Your task to perform on an android device: open app "Firefox Browser" (install if not already installed) and enter user name: "hashed@outlook.com" and password: "congestive" Image 0: 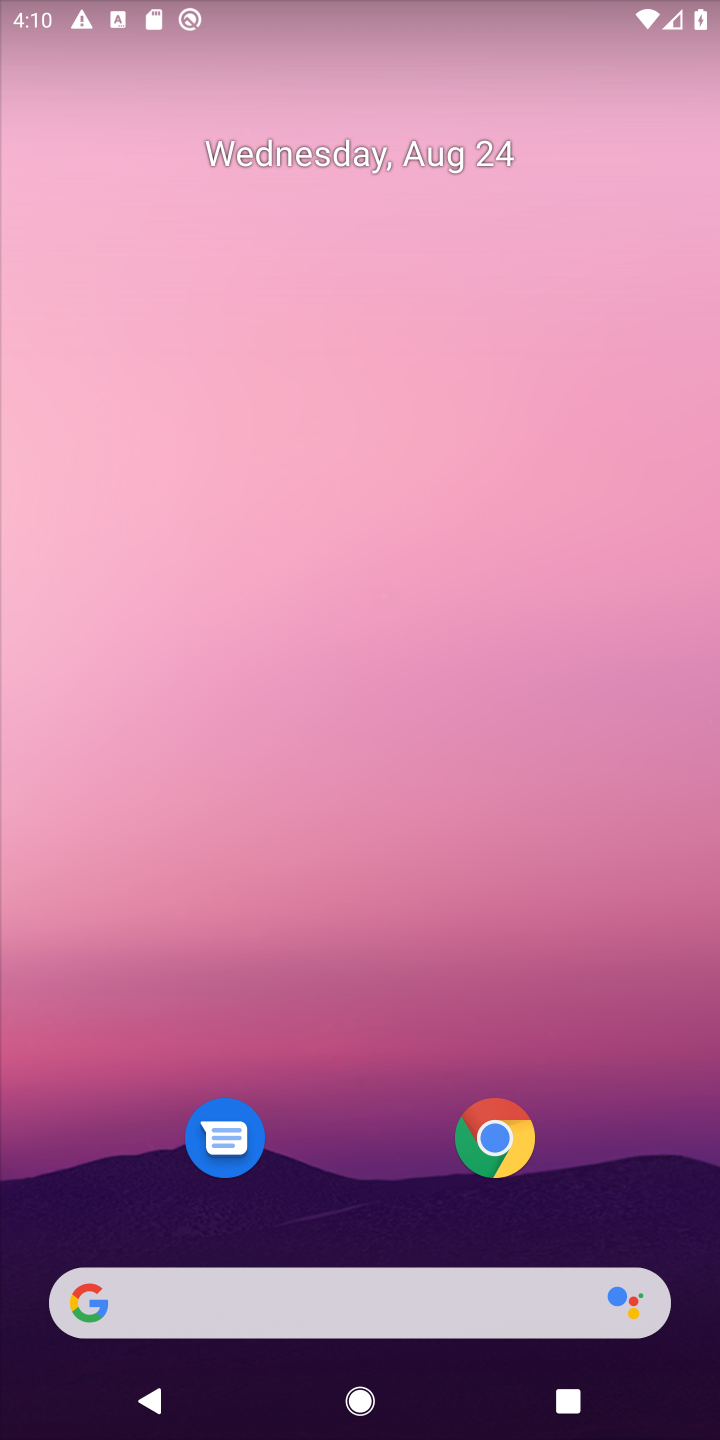
Step 0: drag from (350, 594) to (343, 5)
Your task to perform on an android device: open app "Firefox Browser" (install if not already installed) and enter user name: "hashed@outlook.com" and password: "congestive" Image 1: 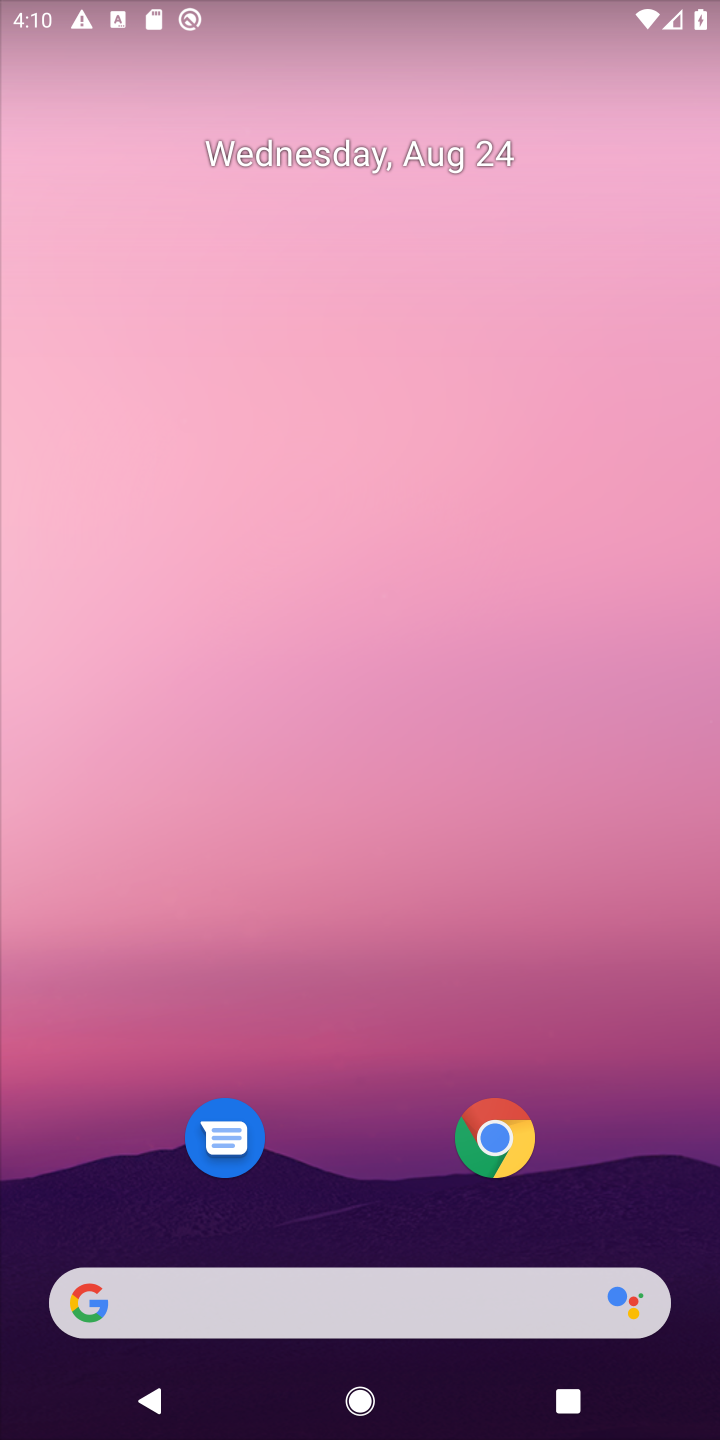
Step 1: drag from (379, 951) to (391, 4)
Your task to perform on an android device: open app "Firefox Browser" (install if not already installed) and enter user name: "hashed@outlook.com" and password: "congestive" Image 2: 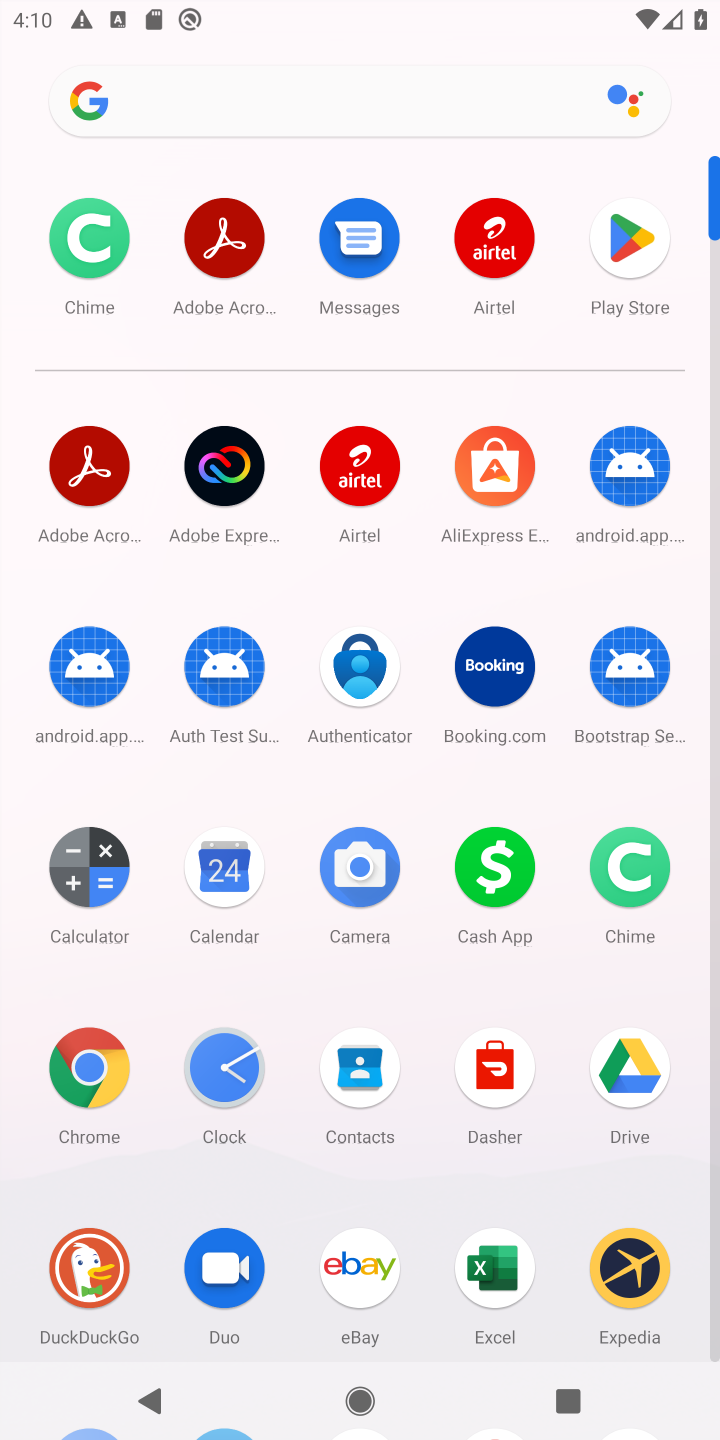
Step 2: click (640, 241)
Your task to perform on an android device: open app "Firefox Browser" (install if not already installed) and enter user name: "hashed@outlook.com" and password: "congestive" Image 3: 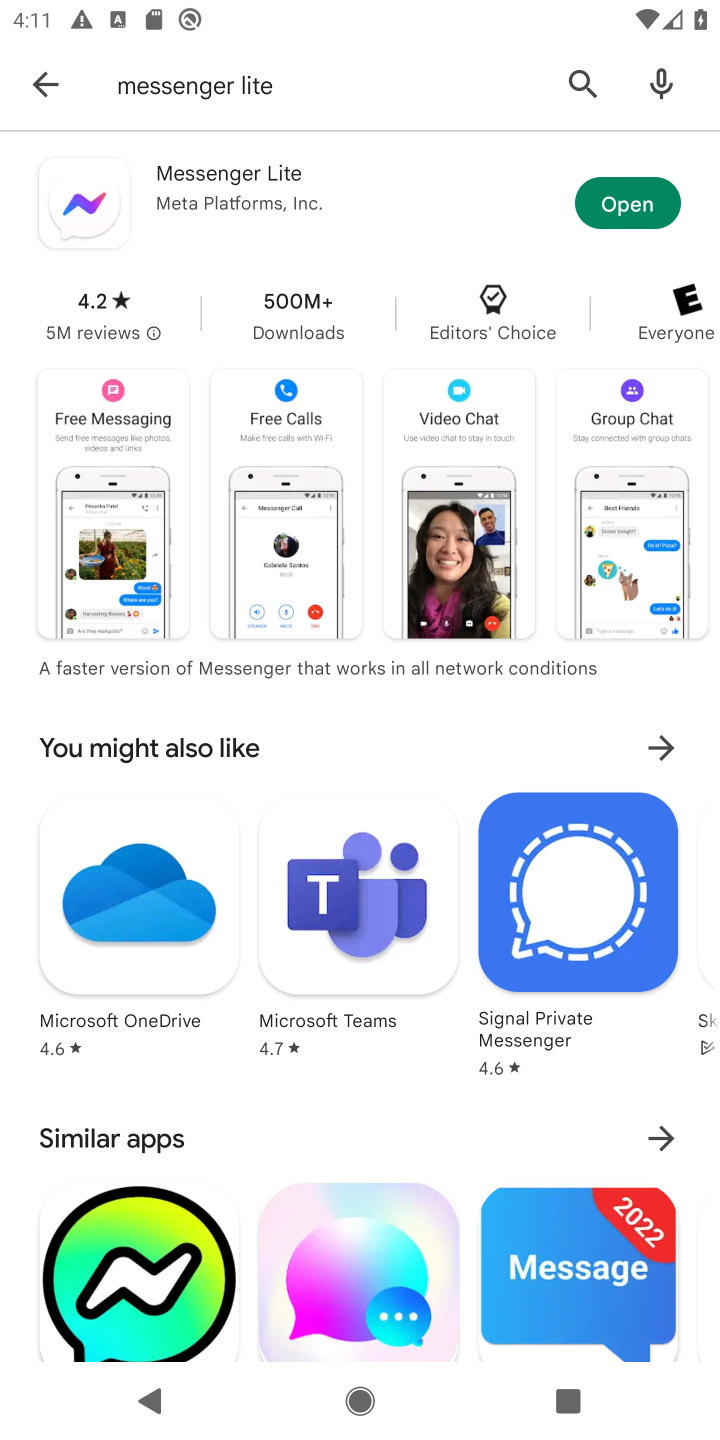
Step 3: click (578, 78)
Your task to perform on an android device: open app "Firefox Browser" (install if not already installed) and enter user name: "hashed@outlook.com" and password: "congestive" Image 4: 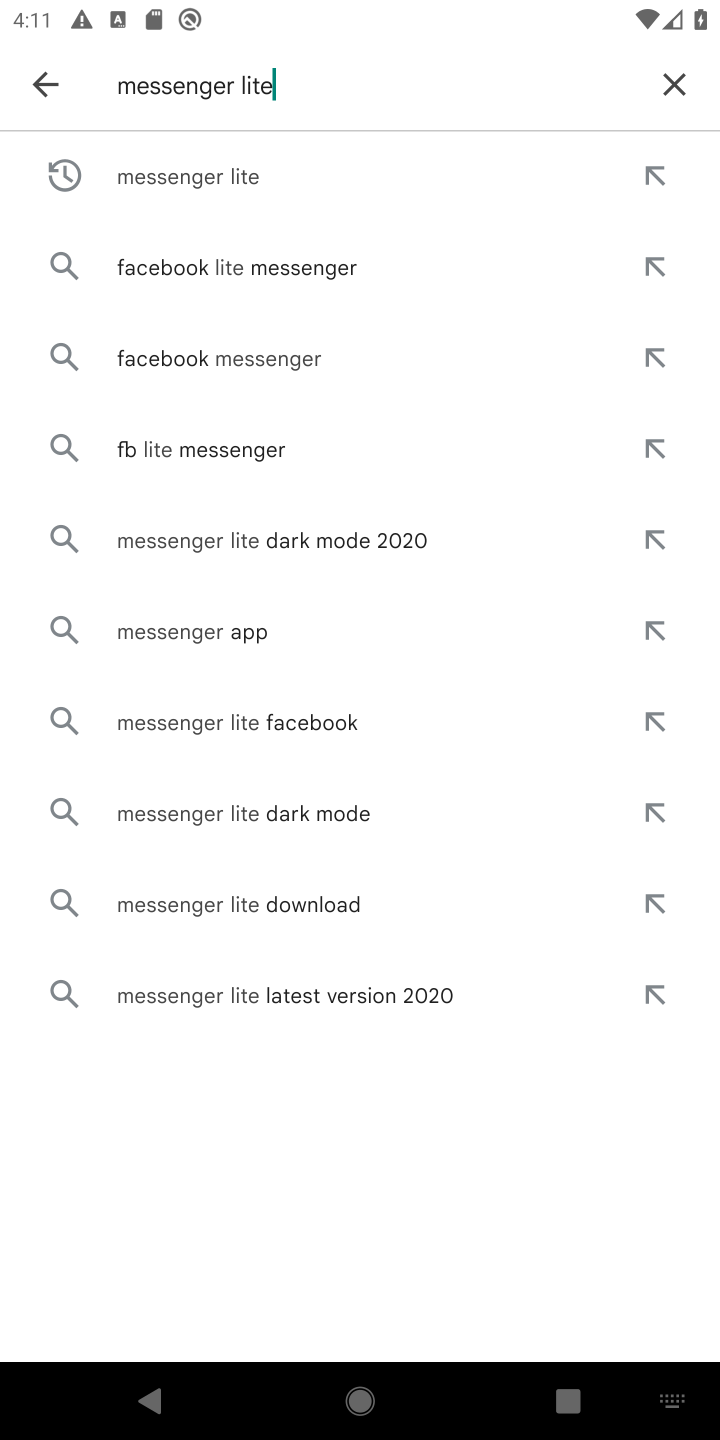
Step 4: click (662, 82)
Your task to perform on an android device: open app "Firefox Browser" (install if not already installed) and enter user name: "hashed@outlook.com" and password: "congestive" Image 5: 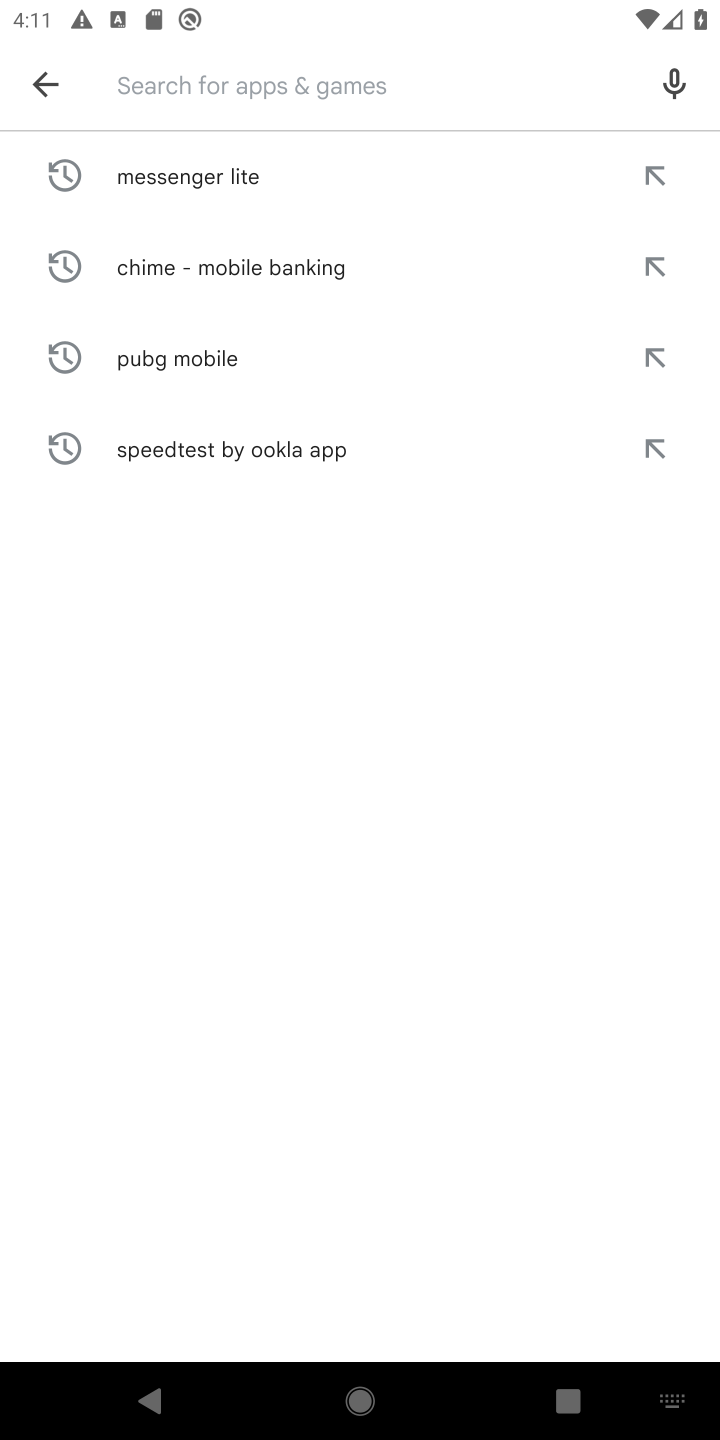
Step 5: type "Firefox Browser"
Your task to perform on an android device: open app "Firefox Browser" (install if not already installed) and enter user name: "hashed@outlook.com" and password: "congestive" Image 6: 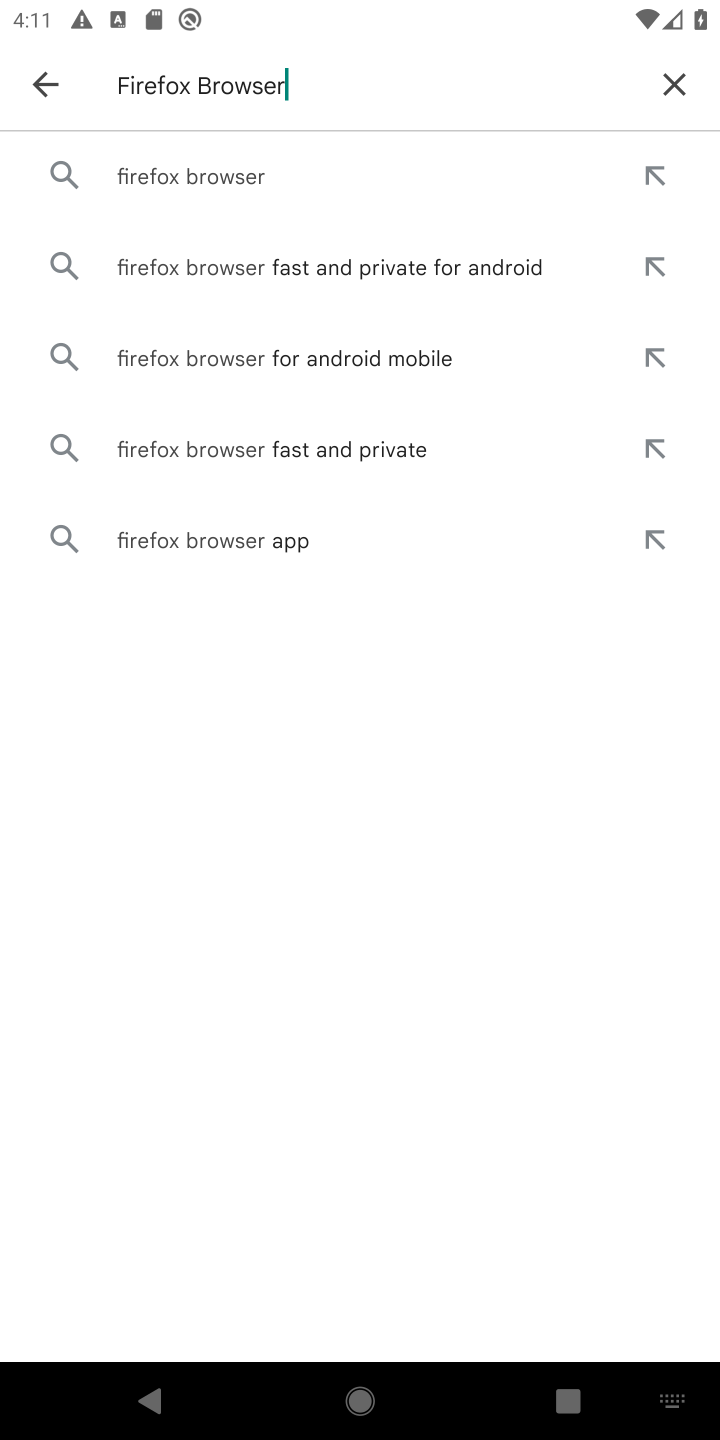
Step 6: click (225, 174)
Your task to perform on an android device: open app "Firefox Browser" (install if not already installed) and enter user name: "hashed@outlook.com" and password: "congestive" Image 7: 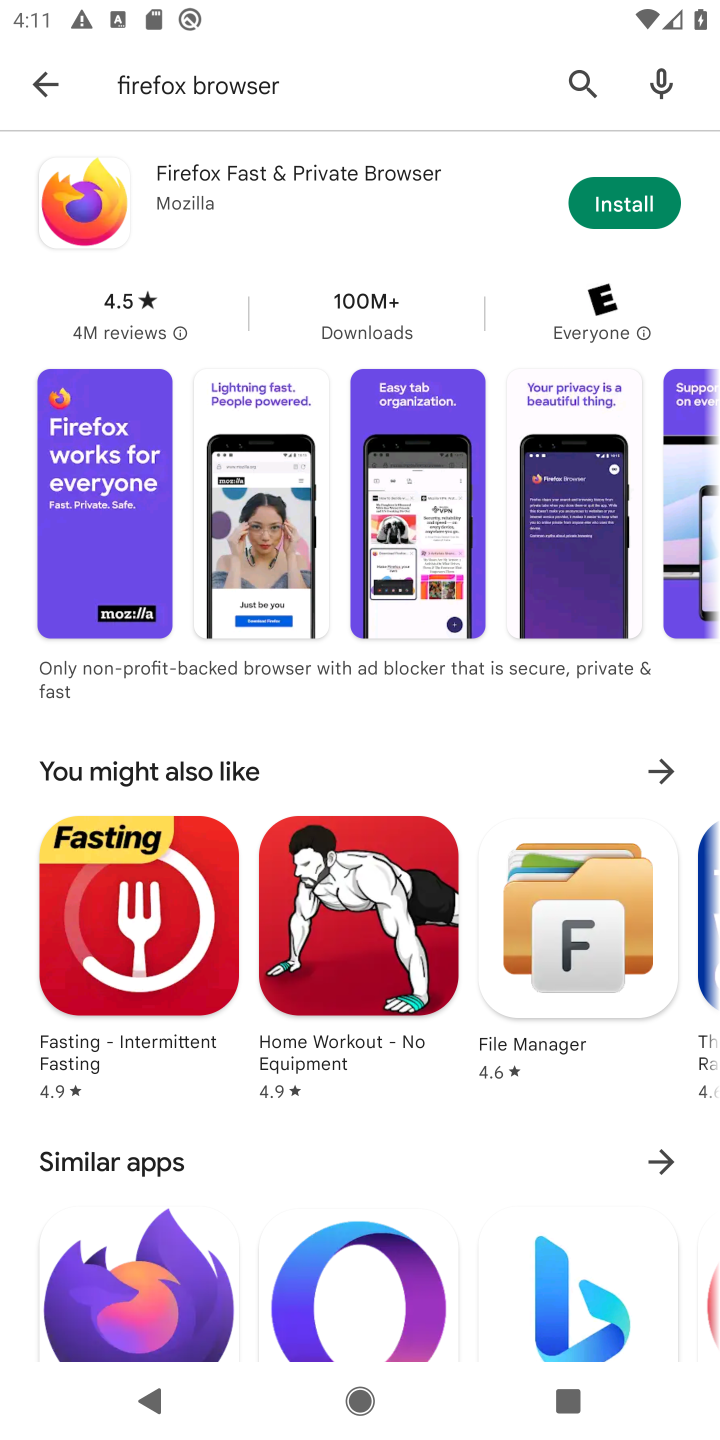
Step 7: click (609, 207)
Your task to perform on an android device: open app "Firefox Browser" (install if not already installed) and enter user name: "hashed@outlook.com" and password: "congestive" Image 8: 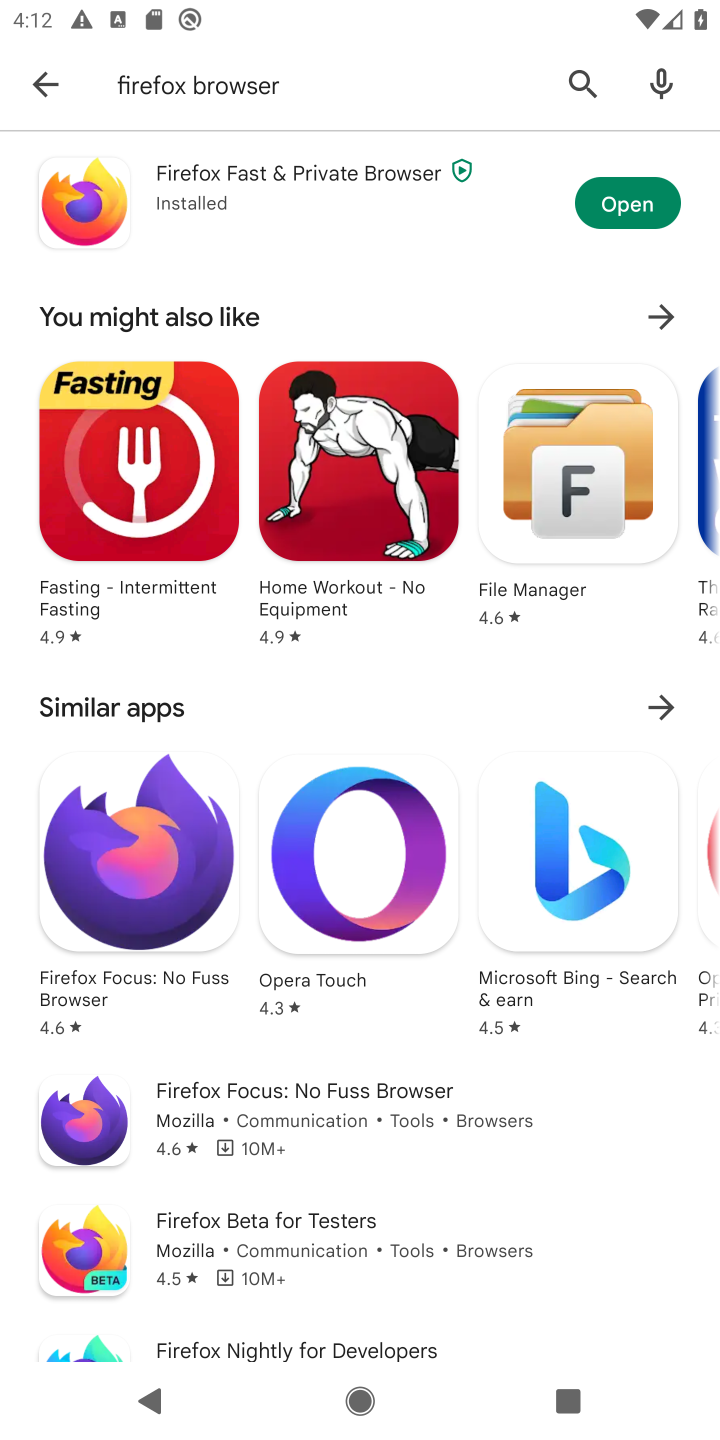
Step 8: click (625, 204)
Your task to perform on an android device: open app "Firefox Browser" (install if not already installed) and enter user name: "hashed@outlook.com" and password: "congestive" Image 9: 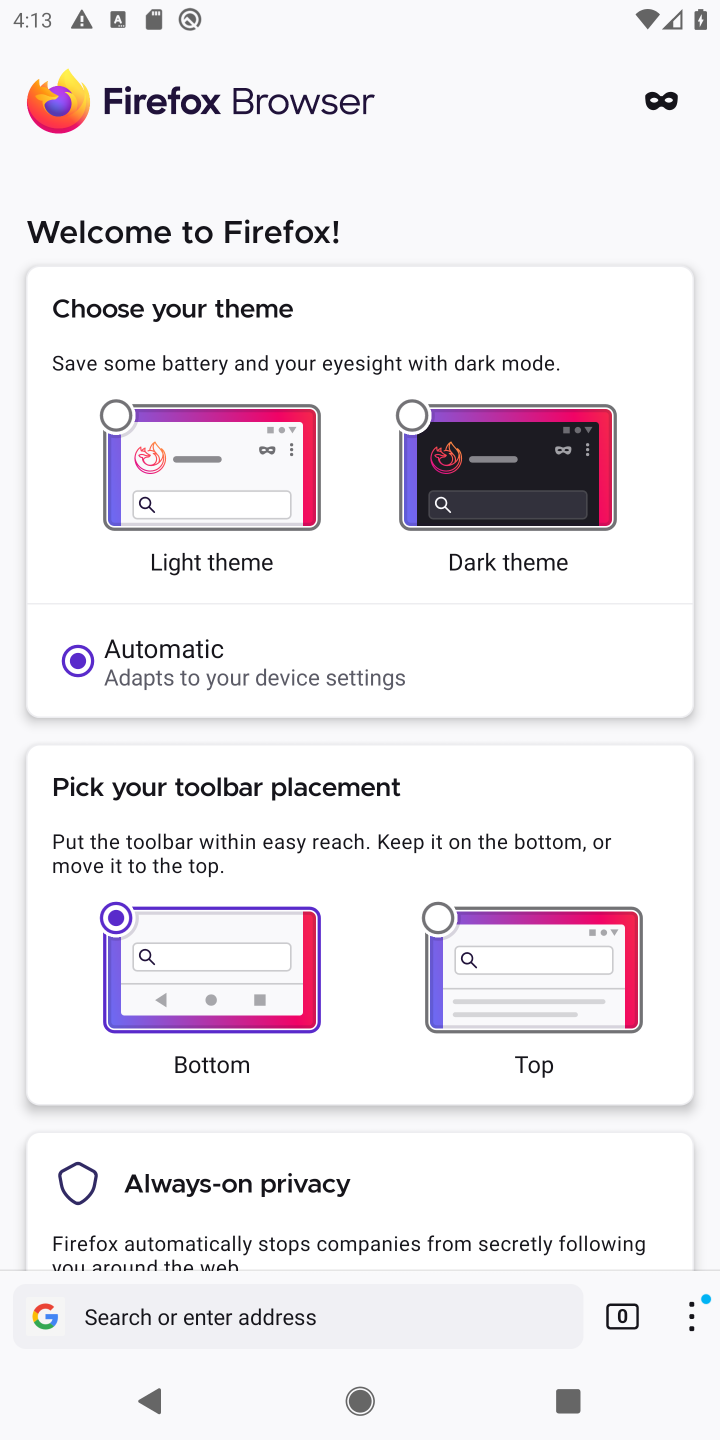
Step 9: task complete